Your task to perform on an android device: change notifications settings Image 0: 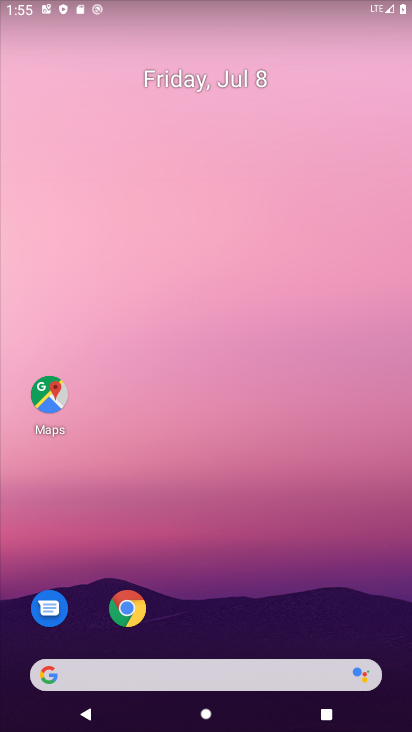
Step 0: drag from (395, 650) to (329, 113)
Your task to perform on an android device: change notifications settings Image 1: 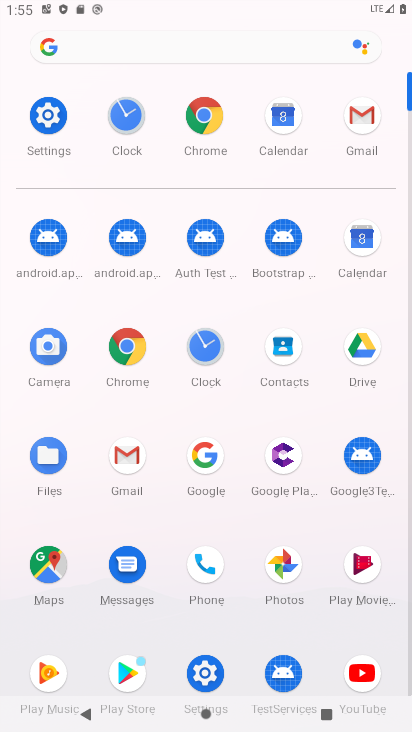
Step 1: click (205, 673)
Your task to perform on an android device: change notifications settings Image 2: 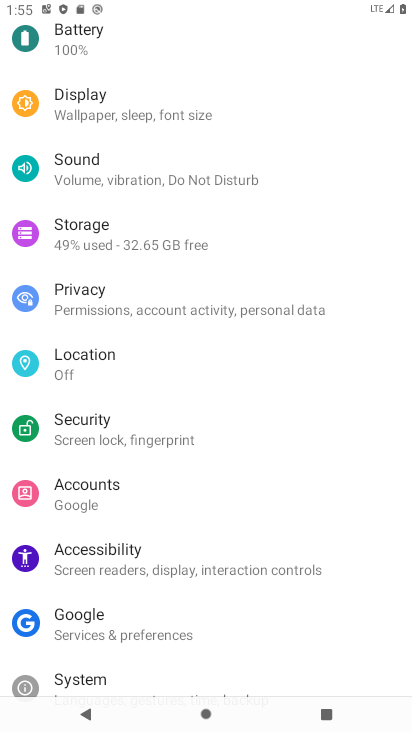
Step 2: drag from (327, 116) to (318, 418)
Your task to perform on an android device: change notifications settings Image 3: 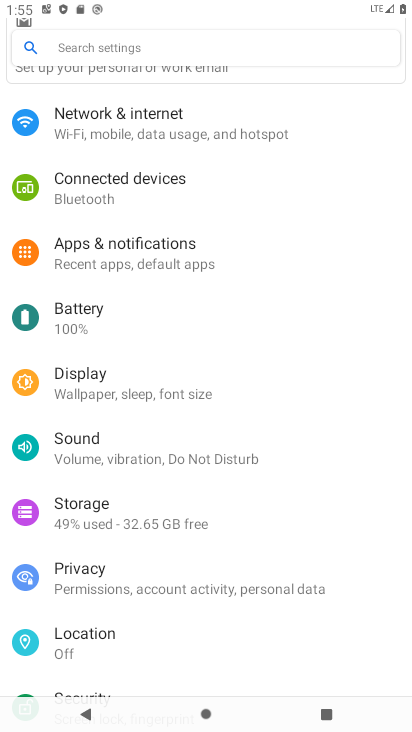
Step 3: click (111, 247)
Your task to perform on an android device: change notifications settings Image 4: 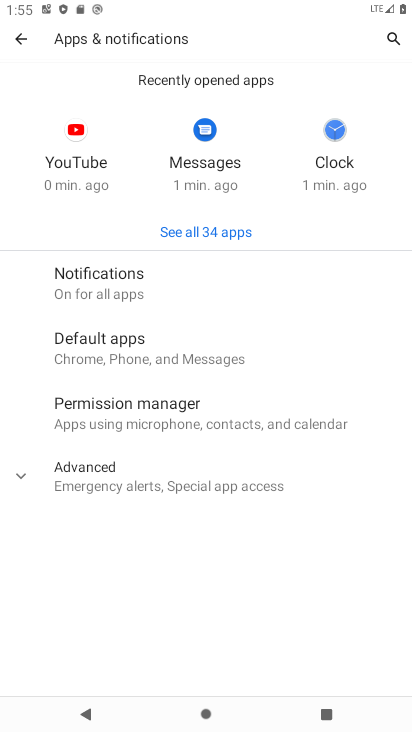
Step 4: click (92, 281)
Your task to perform on an android device: change notifications settings Image 5: 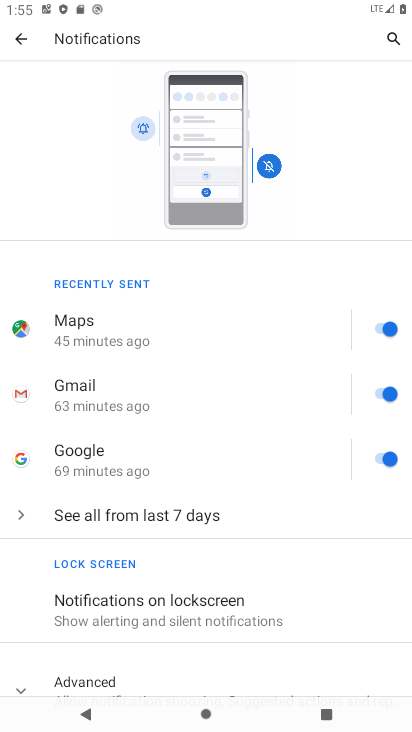
Step 5: drag from (311, 611) to (303, 159)
Your task to perform on an android device: change notifications settings Image 6: 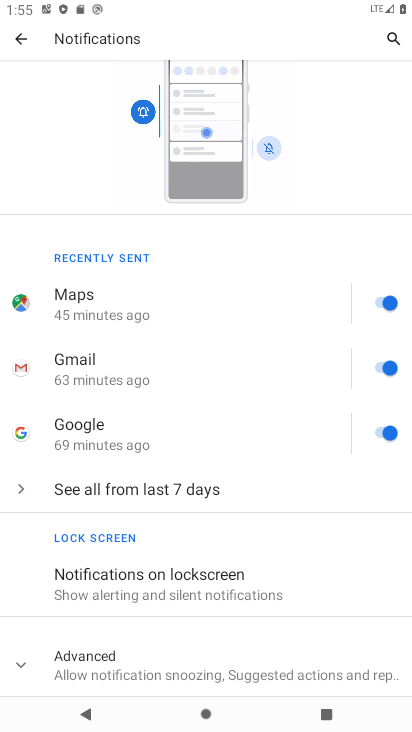
Step 6: click (20, 667)
Your task to perform on an android device: change notifications settings Image 7: 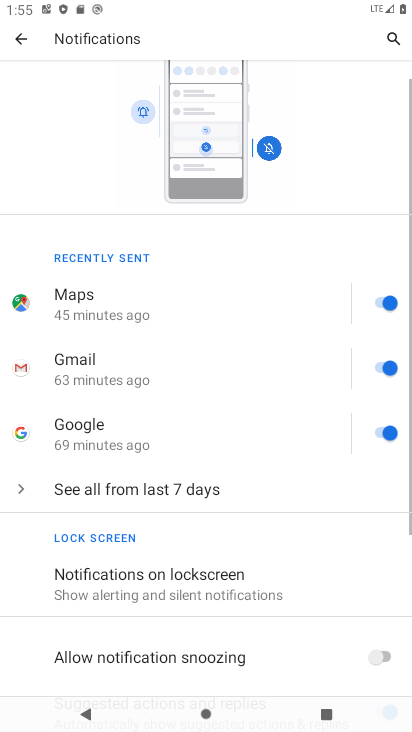
Step 7: drag from (288, 630) to (286, 189)
Your task to perform on an android device: change notifications settings Image 8: 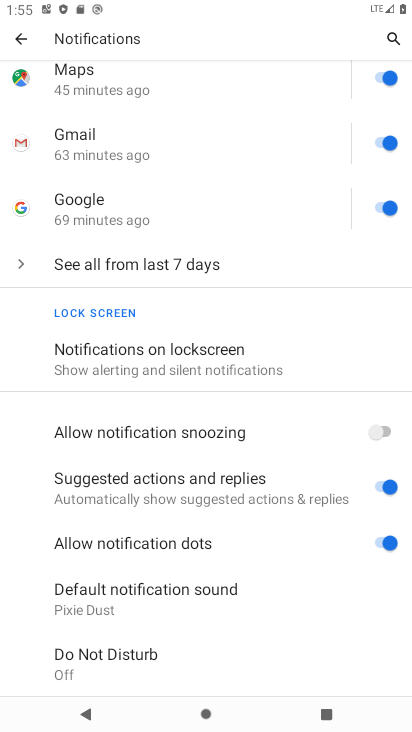
Step 8: click (377, 538)
Your task to perform on an android device: change notifications settings Image 9: 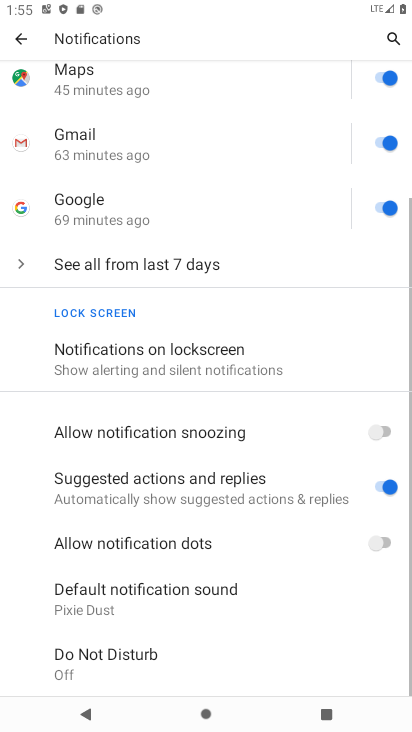
Step 9: click (384, 428)
Your task to perform on an android device: change notifications settings Image 10: 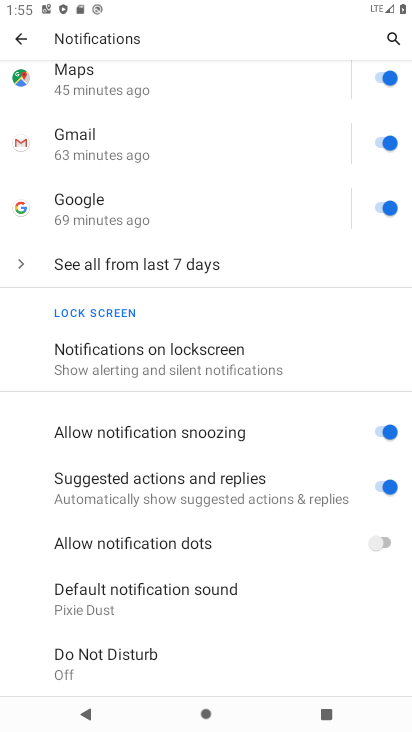
Step 10: task complete